Your task to perform on an android device: change the clock display to analog Image 0: 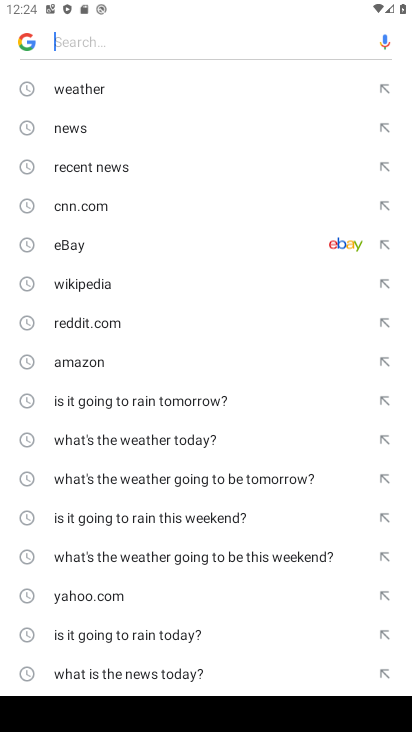
Step 0: press home button
Your task to perform on an android device: change the clock display to analog Image 1: 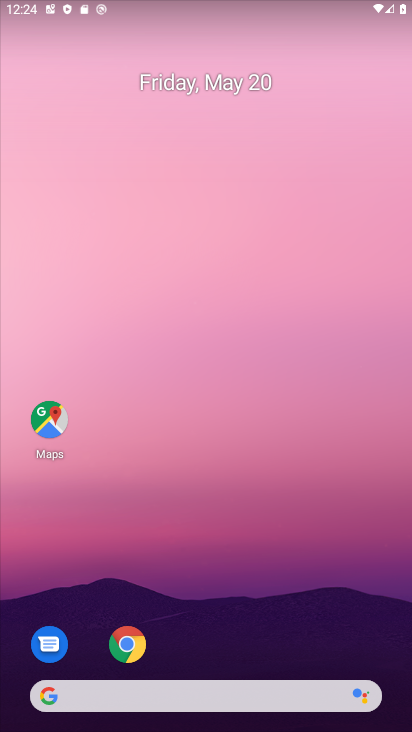
Step 1: drag from (236, 664) to (309, 11)
Your task to perform on an android device: change the clock display to analog Image 2: 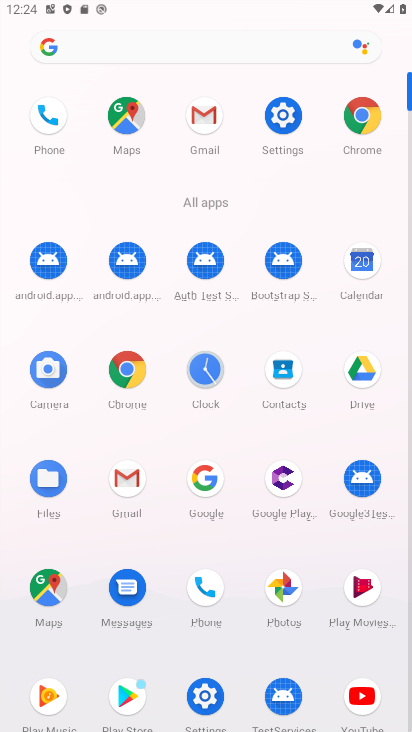
Step 2: click (207, 376)
Your task to perform on an android device: change the clock display to analog Image 3: 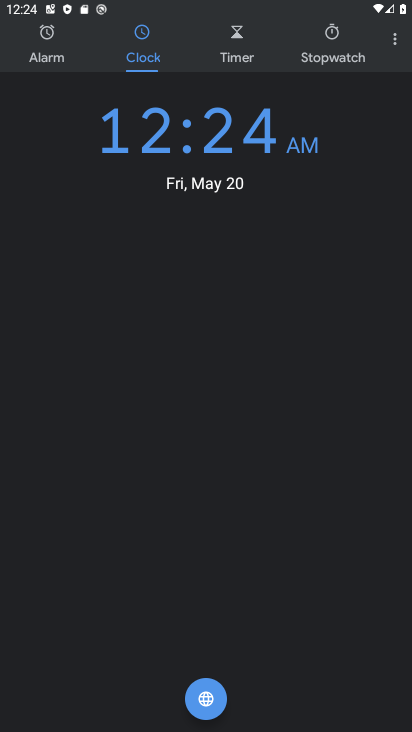
Step 3: click (395, 43)
Your task to perform on an android device: change the clock display to analog Image 4: 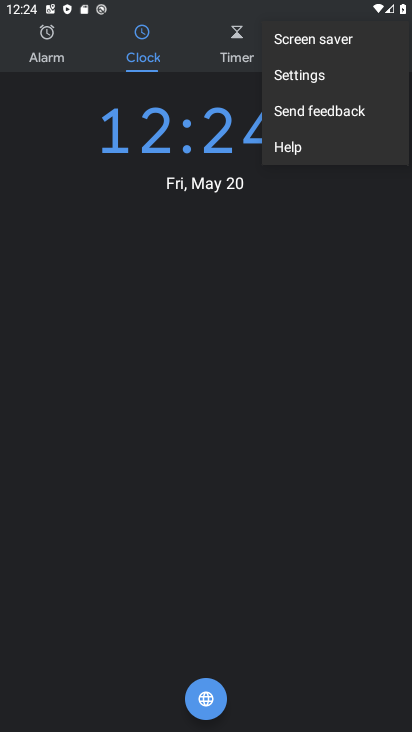
Step 4: click (306, 72)
Your task to perform on an android device: change the clock display to analog Image 5: 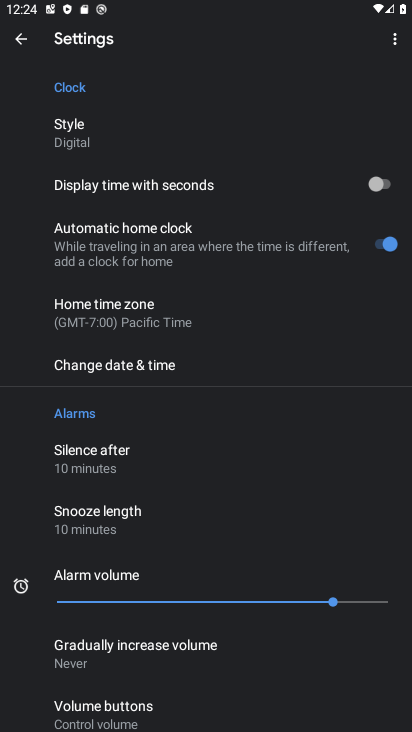
Step 5: click (79, 134)
Your task to perform on an android device: change the clock display to analog Image 6: 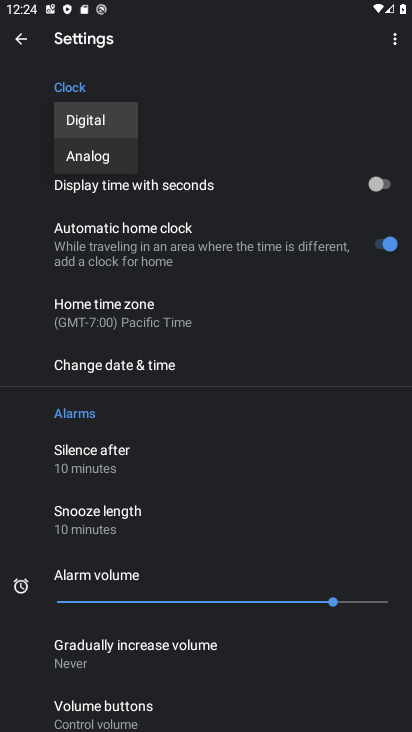
Step 6: click (99, 165)
Your task to perform on an android device: change the clock display to analog Image 7: 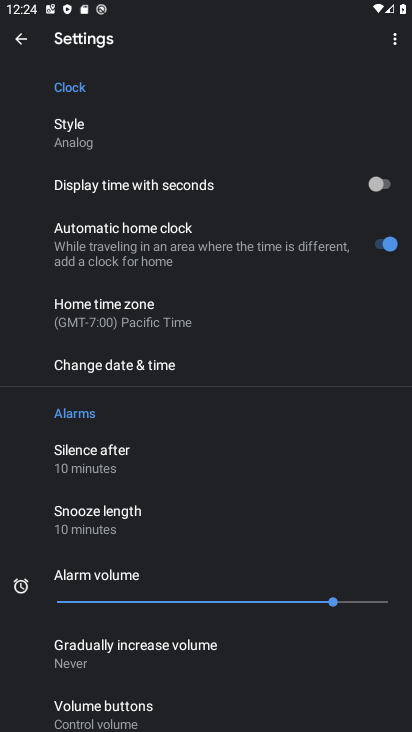
Step 7: task complete